Your task to perform on an android device: Go to Wikipedia Image 0: 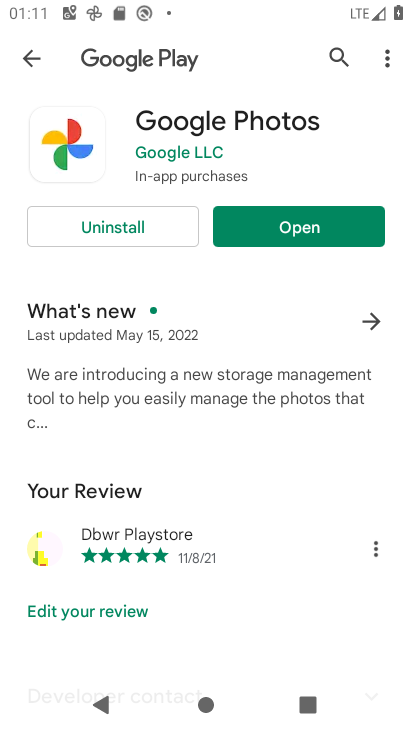
Step 0: press home button
Your task to perform on an android device: Go to Wikipedia Image 1: 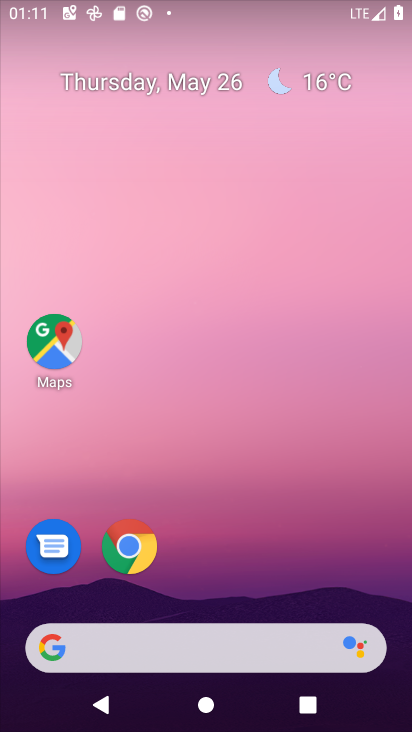
Step 1: click (127, 544)
Your task to perform on an android device: Go to Wikipedia Image 2: 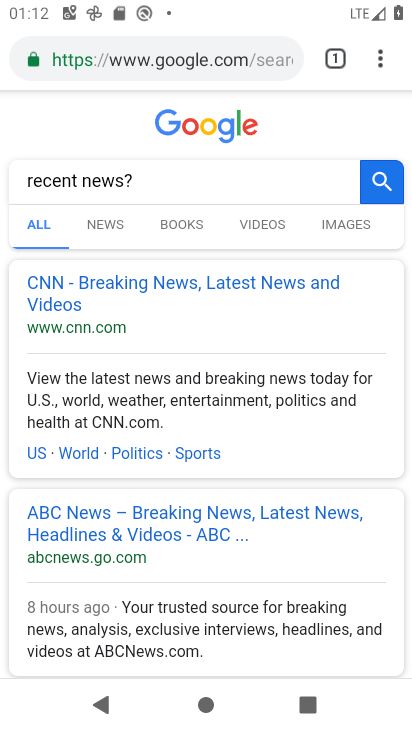
Step 2: click (149, 62)
Your task to perform on an android device: Go to Wikipedia Image 3: 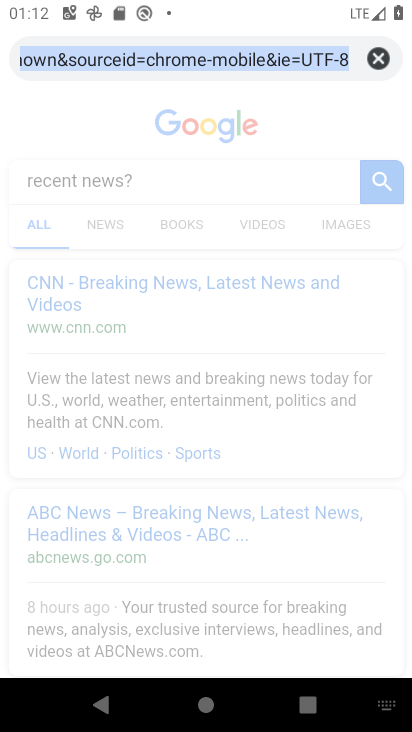
Step 3: type "wikipedia"
Your task to perform on an android device: Go to Wikipedia Image 4: 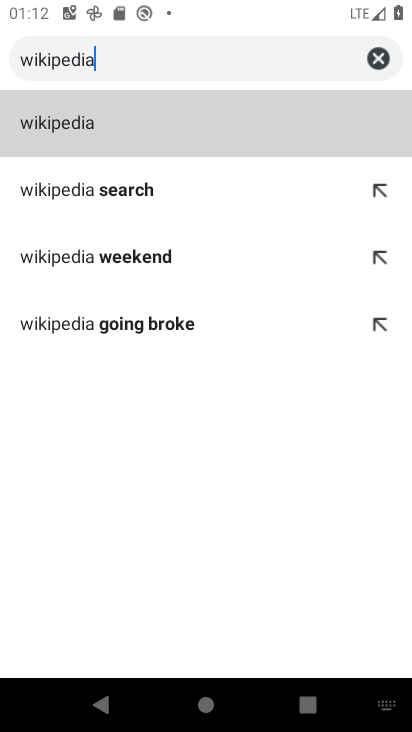
Step 4: click (139, 144)
Your task to perform on an android device: Go to Wikipedia Image 5: 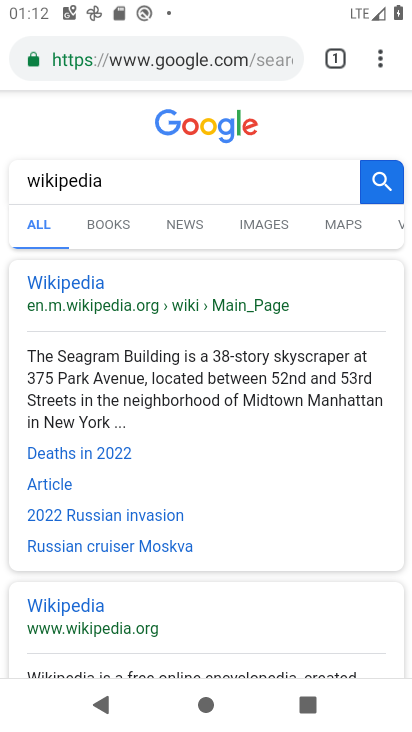
Step 5: task complete